Your task to perform on an android device: Go to network settings Image 0: 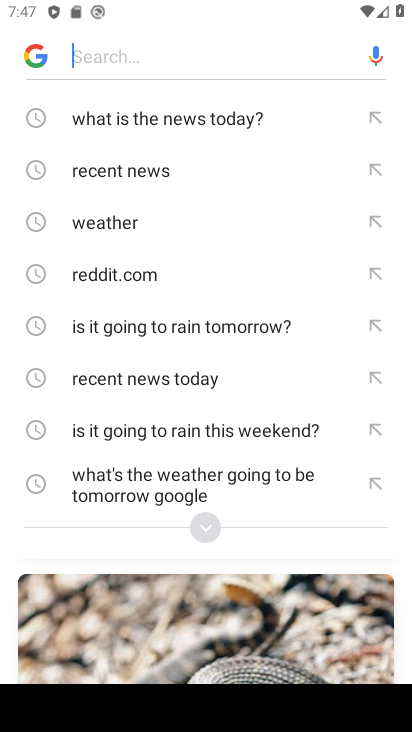
Step 0: press home button
Your task to perform on an android device: Go to network settings Image 1: 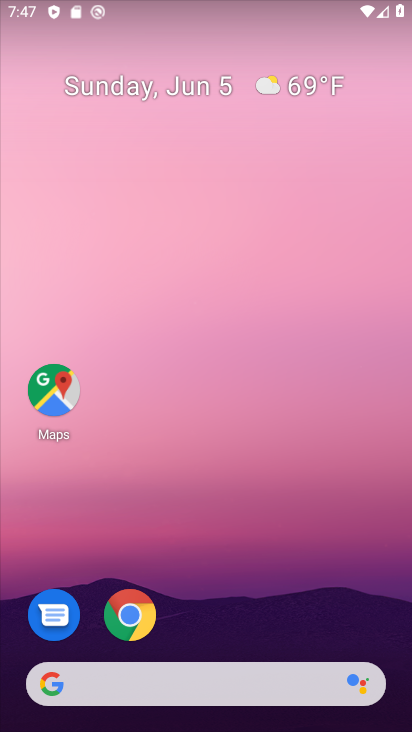
Step 1: drag from (206, 606) to (203, 150)
Your task to perform on an android device: Go to network settings Image 2: 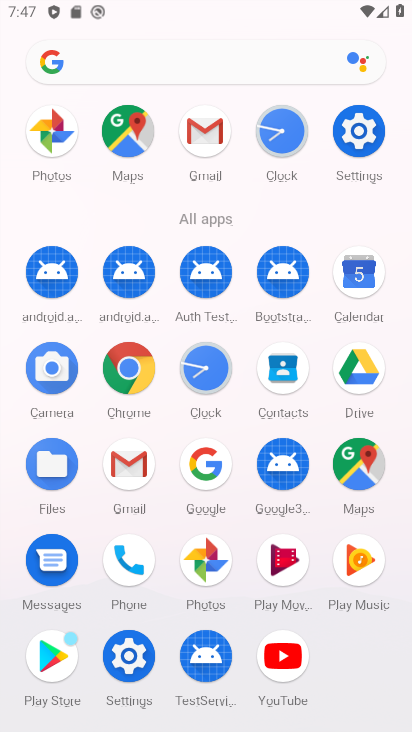
Step 2: click (369, 131)
Your task to perform on an android device: Go to network settings Image 3: 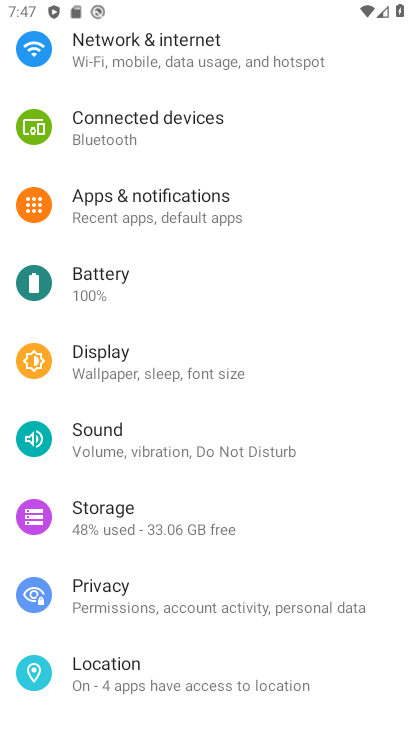
Step 3: click (156, 57)
Your task to perform on an android device: Go to network settings Image 4: 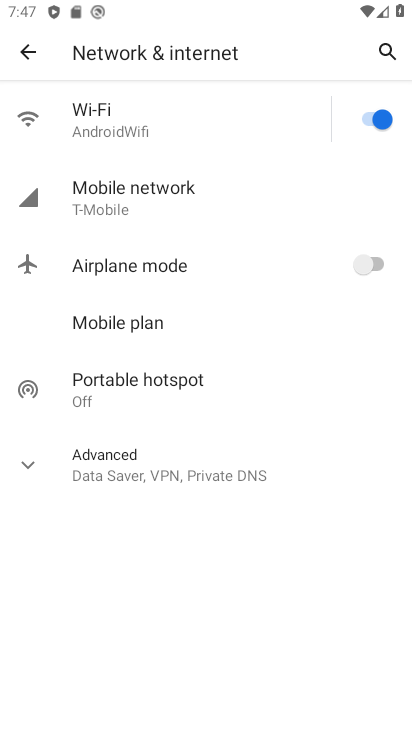
Step 4: task complete